Your task to perform on an android device: turn on notifications settings in the gmail app Image 0: 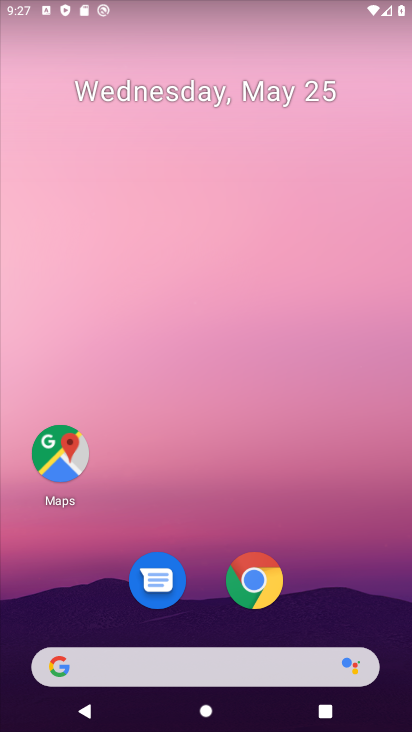
Step 0: press home button
Your task to perform on an android device: turn on notifications settings in the gmail app Image 1: 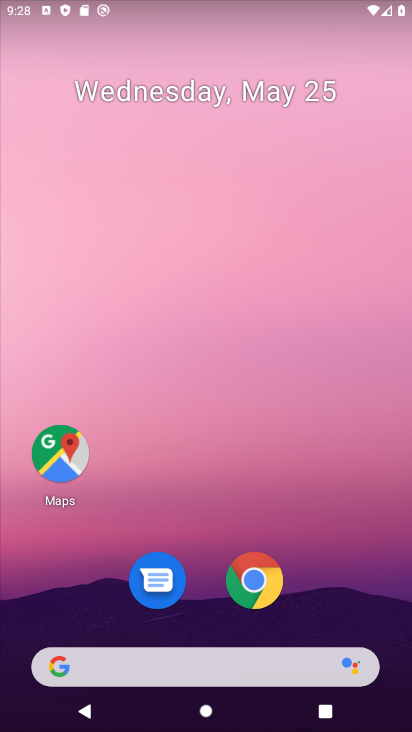
Step 1: drag from (16, 633) to (317, 135)
Your task to perform on an android device: turn on notifications settings in the gmail app Image 2: 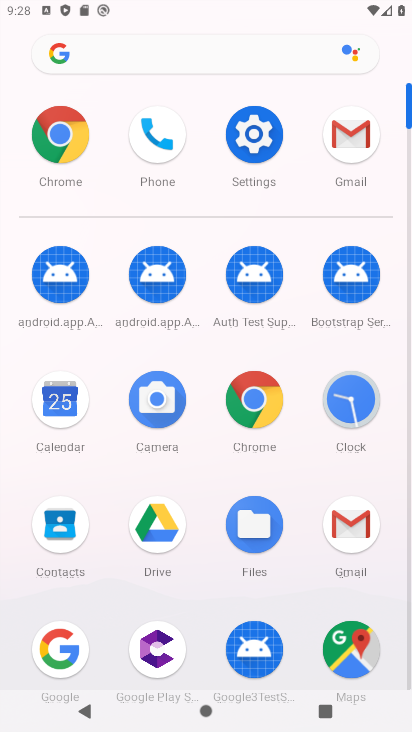
Step 2: click (354, 142)
Your task to perform on an android device: turn on notifications settings in the gmail app Image 3: 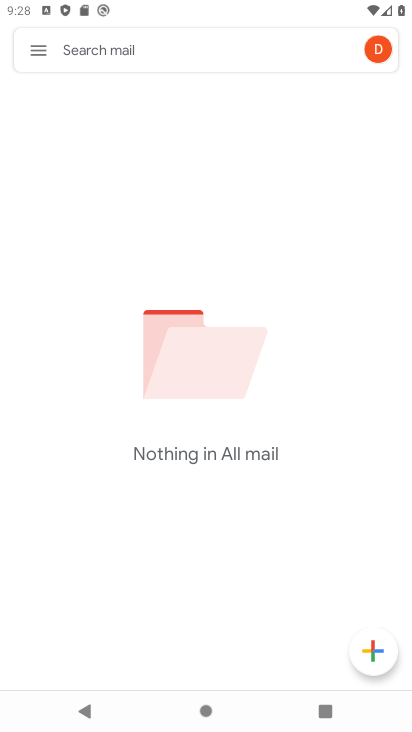
Step 3: click (40, 44)
Your task to perform on an android device: turn on notifications settings in the gmail app Image 4: 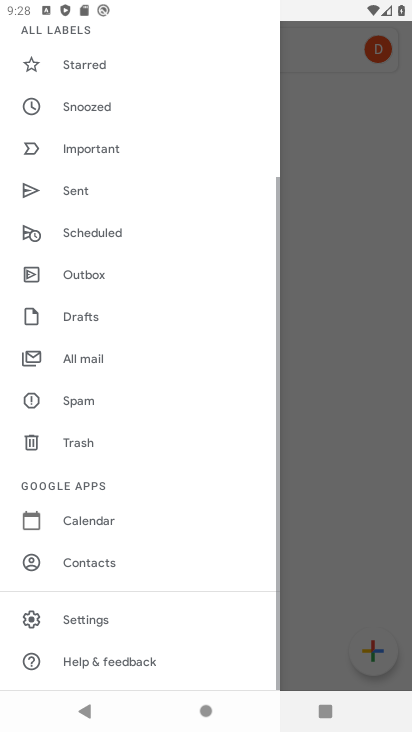
Step 4: click (60, 626)
Your task to perform on an android device: turn on notifications settings in the gmail app Image 5: 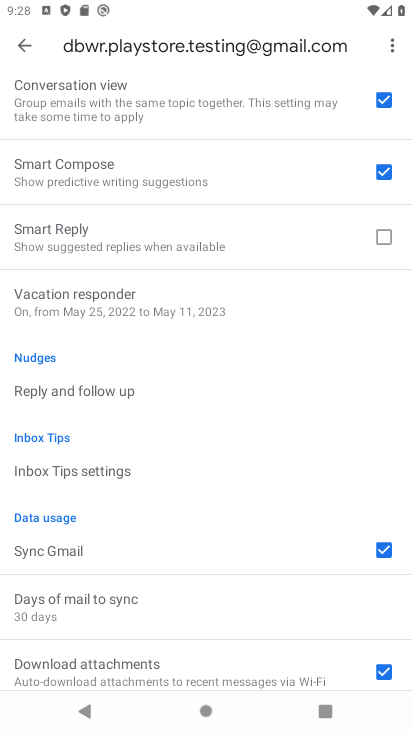
Step 5: drag from (14, 518) to (221, 67)
Your task to perform on an android device: turn on notifications settings in the gmail app Image 6: 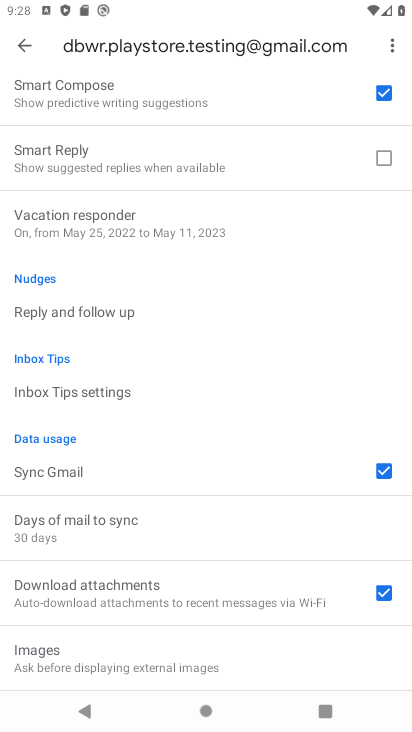
Step 6: drag from (227, 172) to (187, 586)
Your task to perform on an android device: turn on notifications settings in the gmail app Image 7: 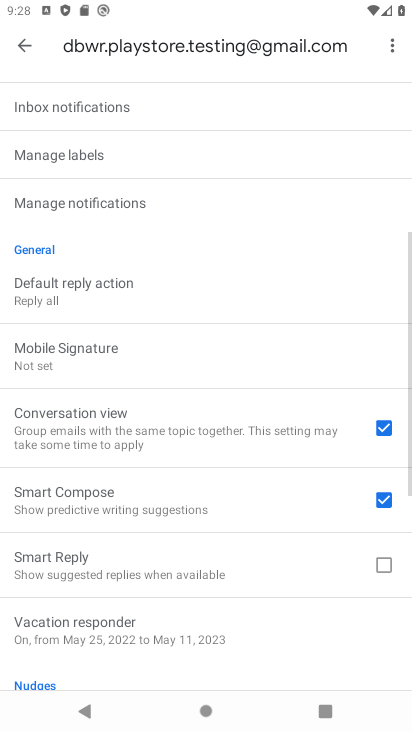
Step 7: drag from (233, 134) to (188, 480)
Your task to perform on an android device: turn on notifications settings in the gmail app Image 8: 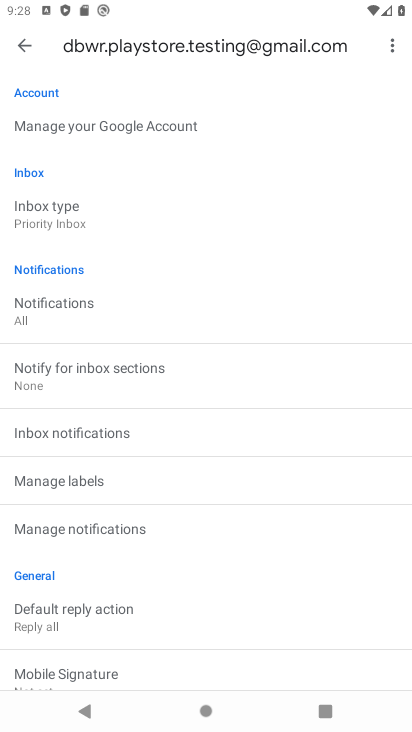
Step 8: click (100, 537)
Your task to perform on an android device: turn on notifications settings in the gmail app Image 9: 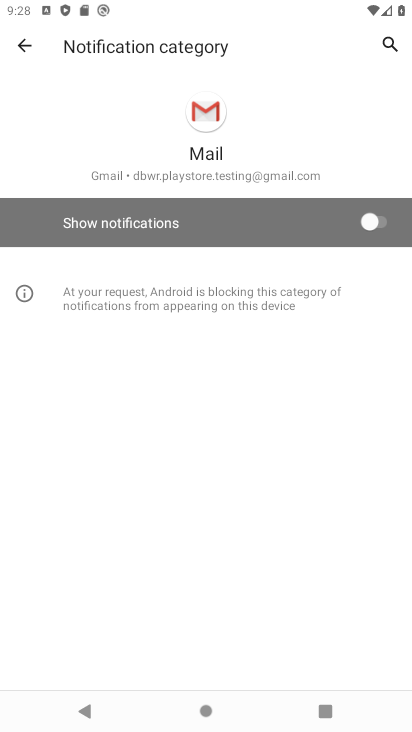
Step 9: click (371, 232)
Your task to perform on an android device: turn on notifications settings in the gmail app Image 10: 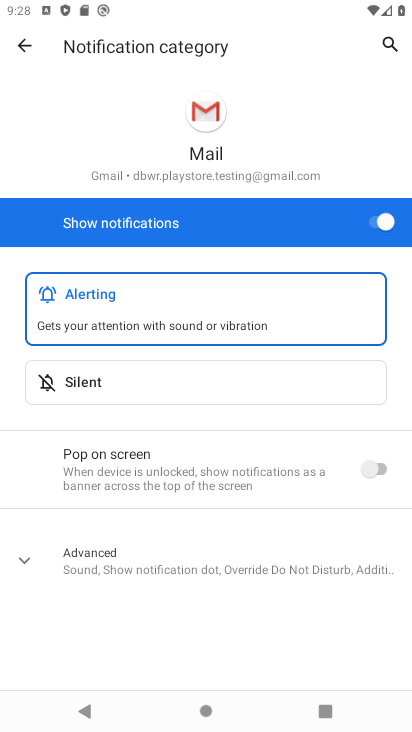
Step 10: task complete